Your task to perform on an android device: Open privacy settings Image 0: 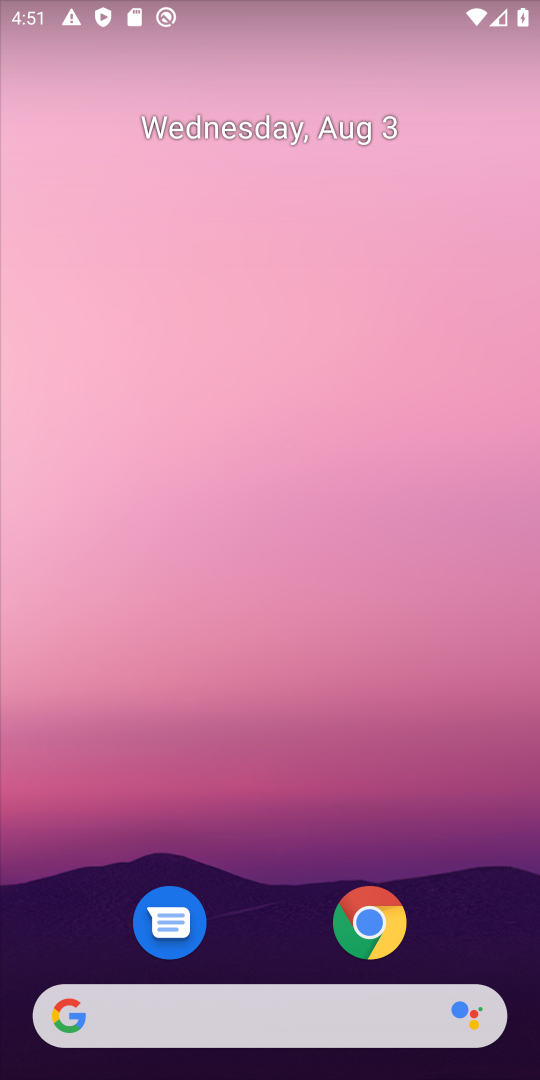
Step 0: drag from (458, 917) to (380, 20)
Your task to perform on an android device: Open privacy settings Image 1: 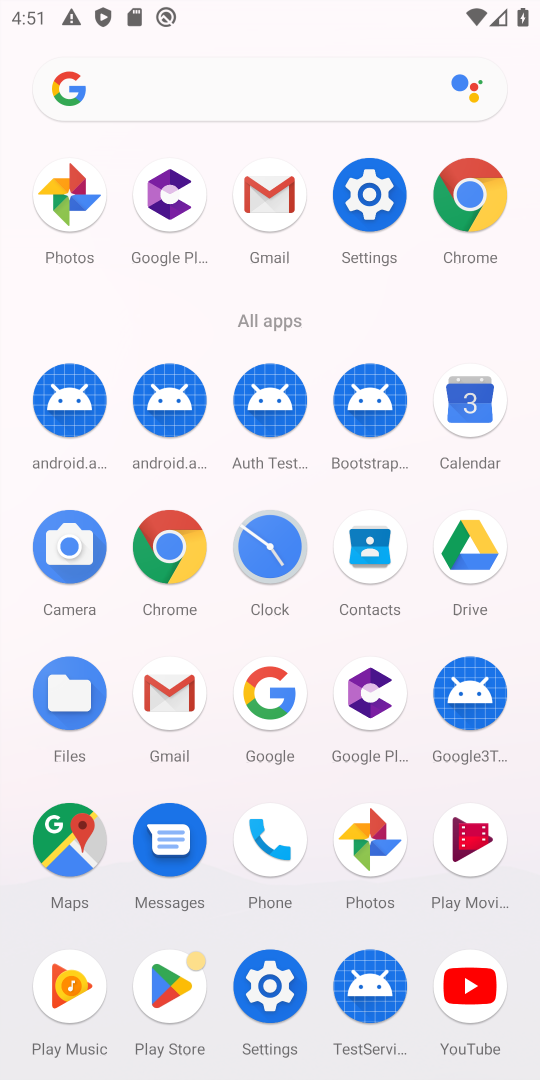
Step 1: click (359, 232)
Your task to perform on an android device: Open privacy settings Image 2: 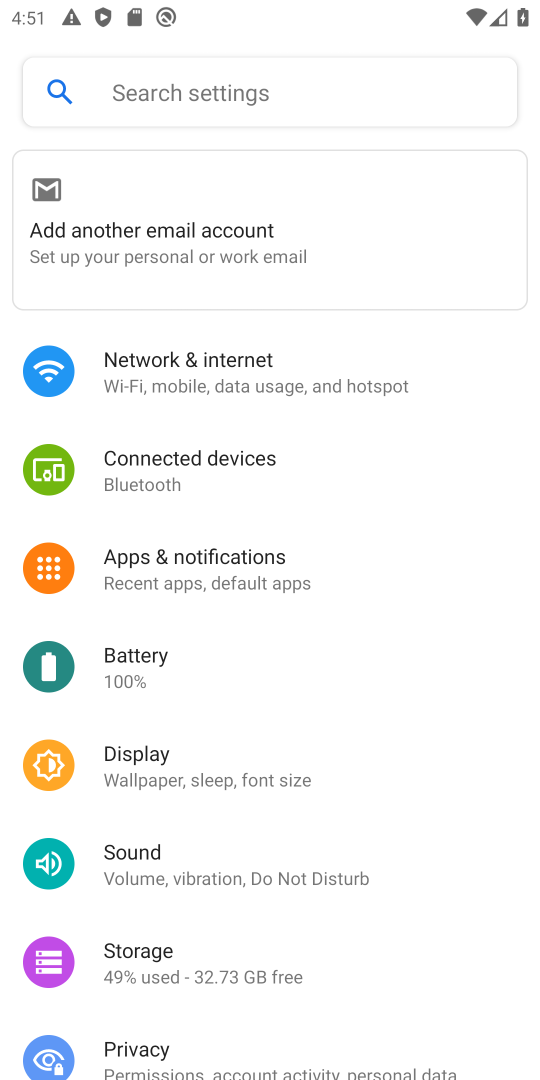
Step 2: drag from (250, 1014) to (248, 434)
Your task to perform on an android device: Open privacy settings Image 3: 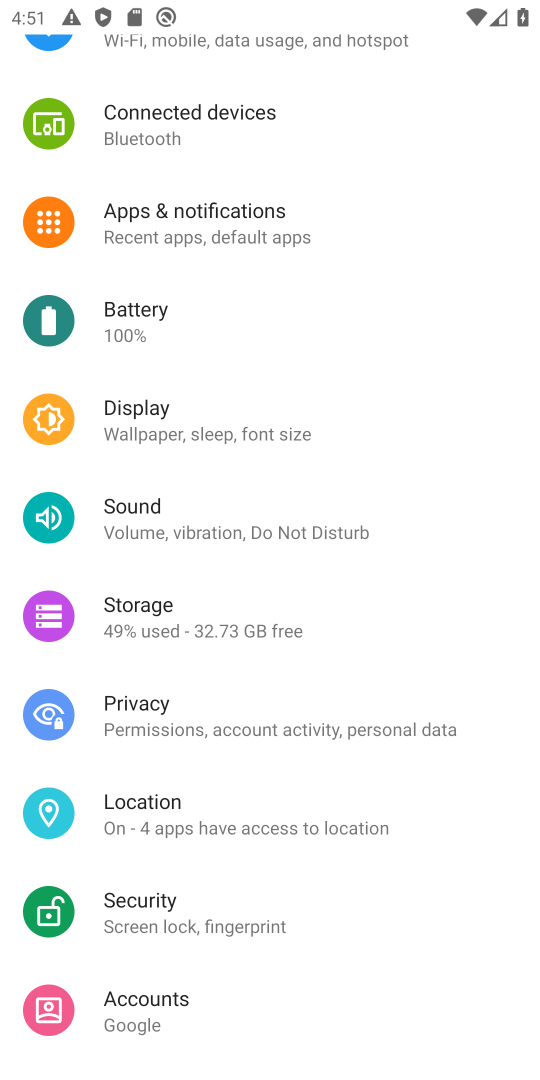
Step 3: click (227, 746)
Your task to perform on an android device: Open privacy settings Image 4: 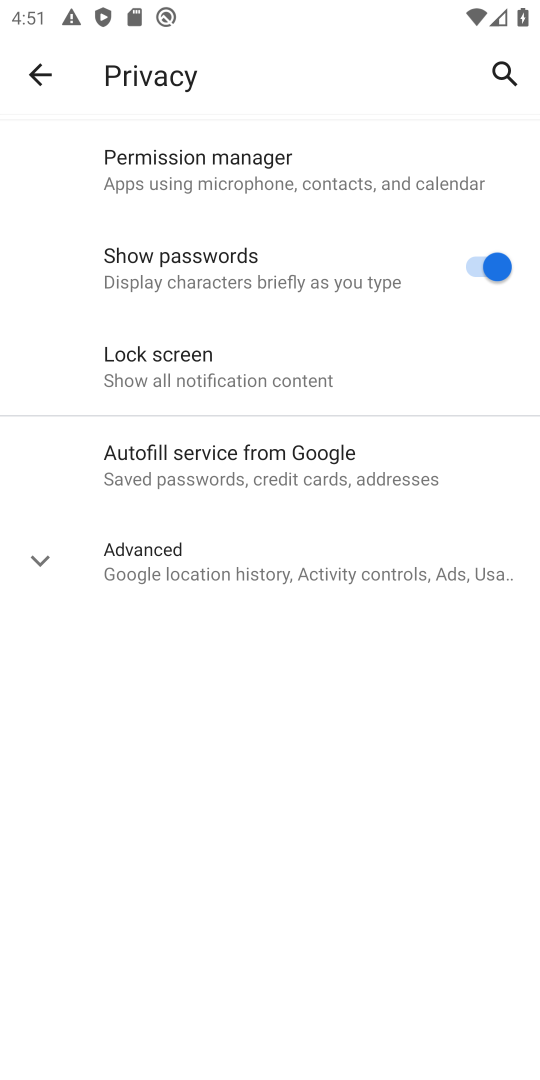
Step 4: task complete